Your task to perform on an android device: turn on notifications settings in the gmail app Image 0: 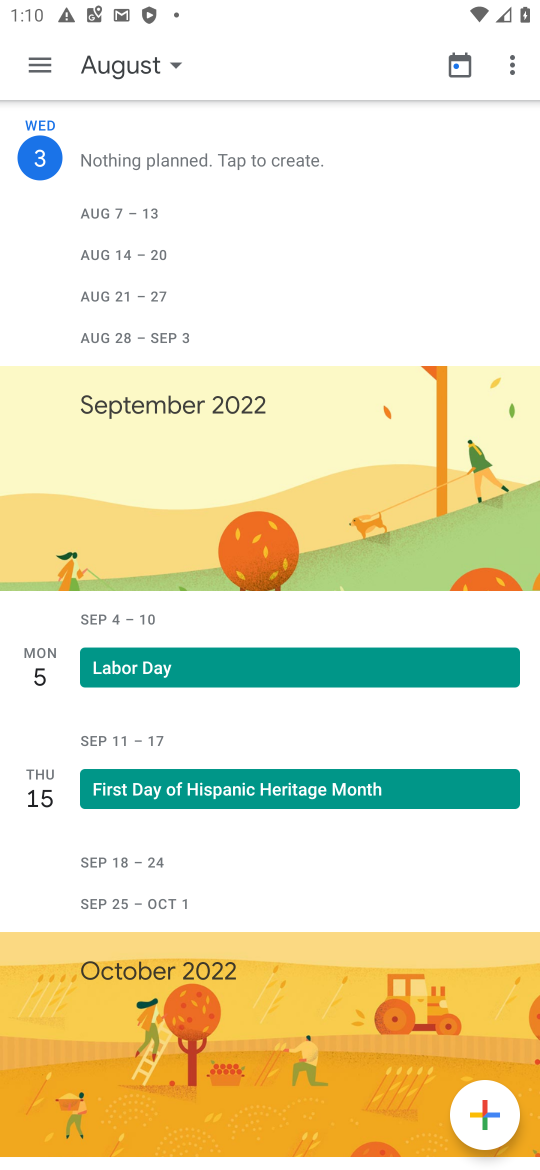
Step 0: task impossible